Your task to perform on an android device: turn on airplane mode Image 0: 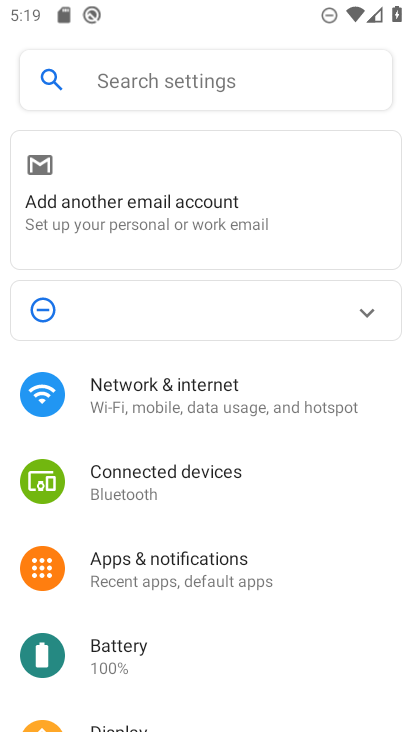
Step 0: click (211, 403)
Your task to perform on an android device: turn on airplane mode Image 1: 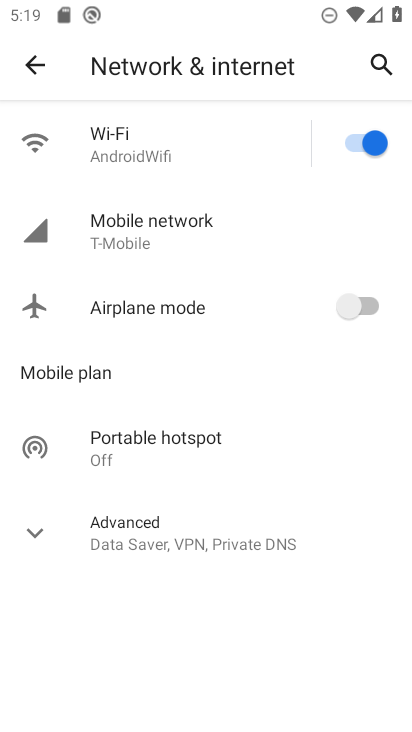
Step 1: click (359, 301)
Your task to perform on an android device: turn on airplane mode Image 2: 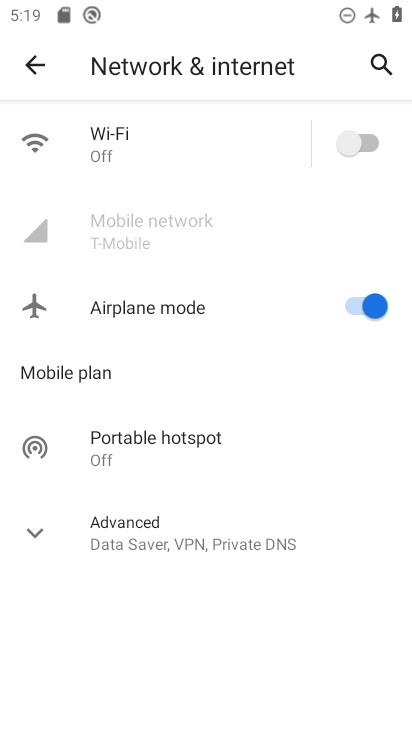
Step 2: click (51, 528)
Your task to perform on an android device: turn on airplane mode Image 3: 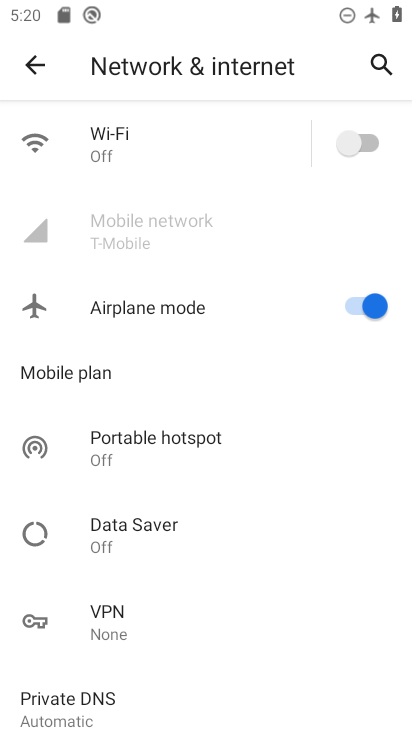
Step 3: task complete